Your task to perform on an android device: What is the speed of a skateboard? Image 0: 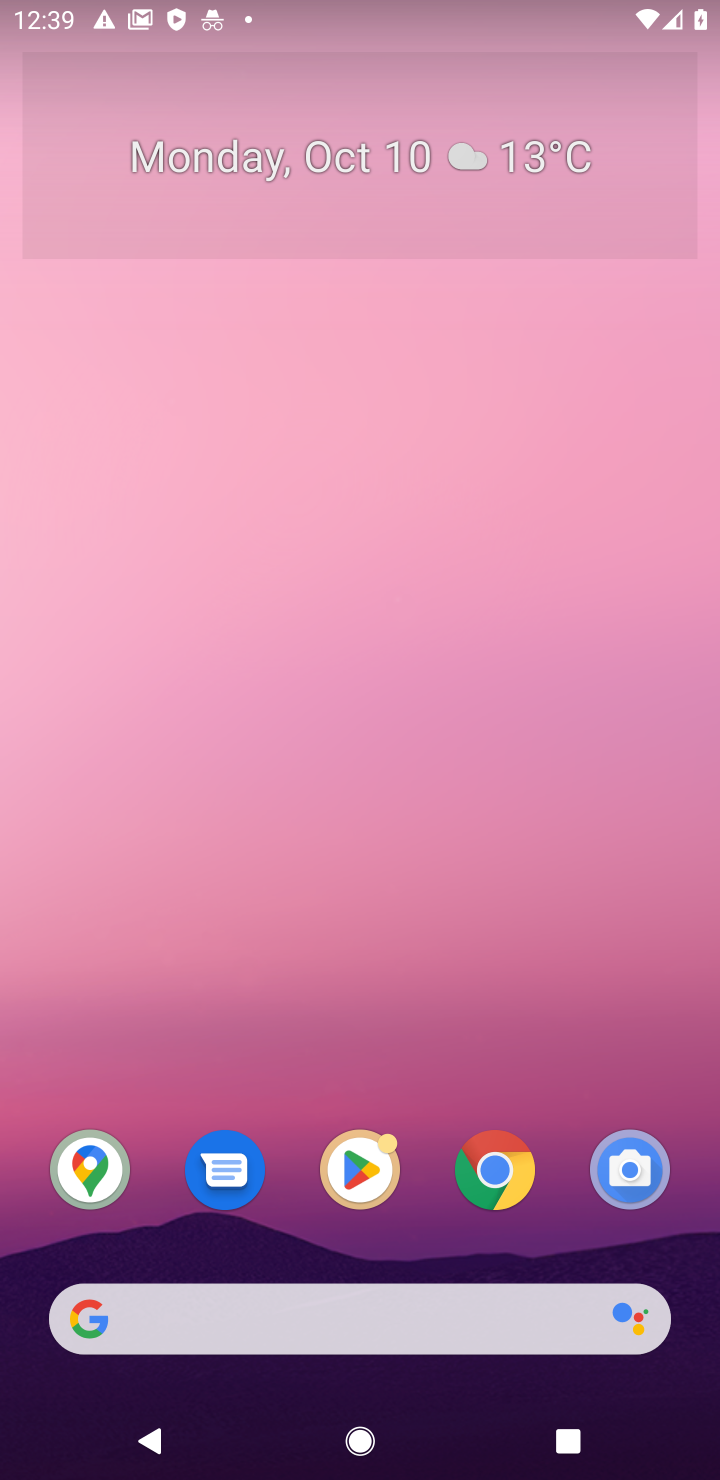
Step 0: click (491, 1172)
Your task to perform on an android device: What is the speed of a skateboard? Image 1: 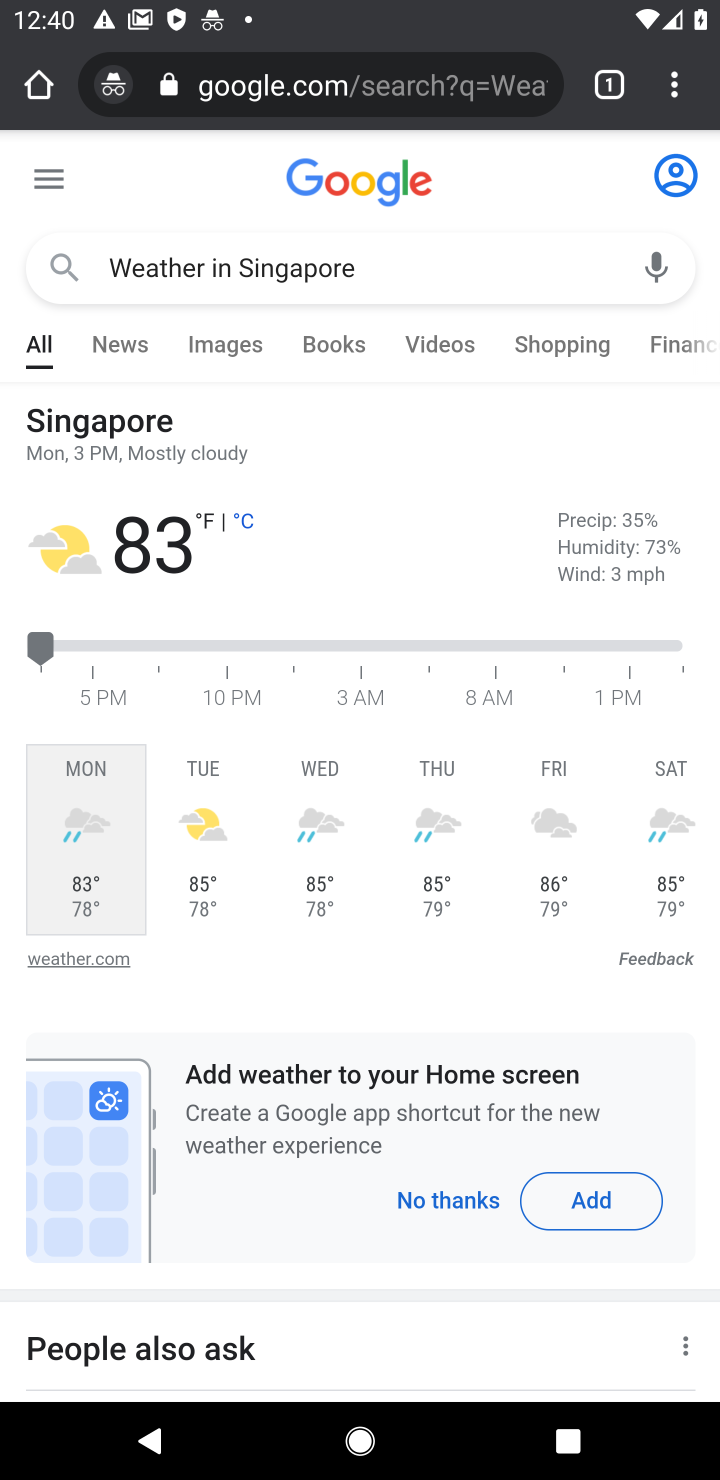
Step 1: click (422, 109)
Your task to perform on an android device: What is the speed of a skateboard? Image 2: 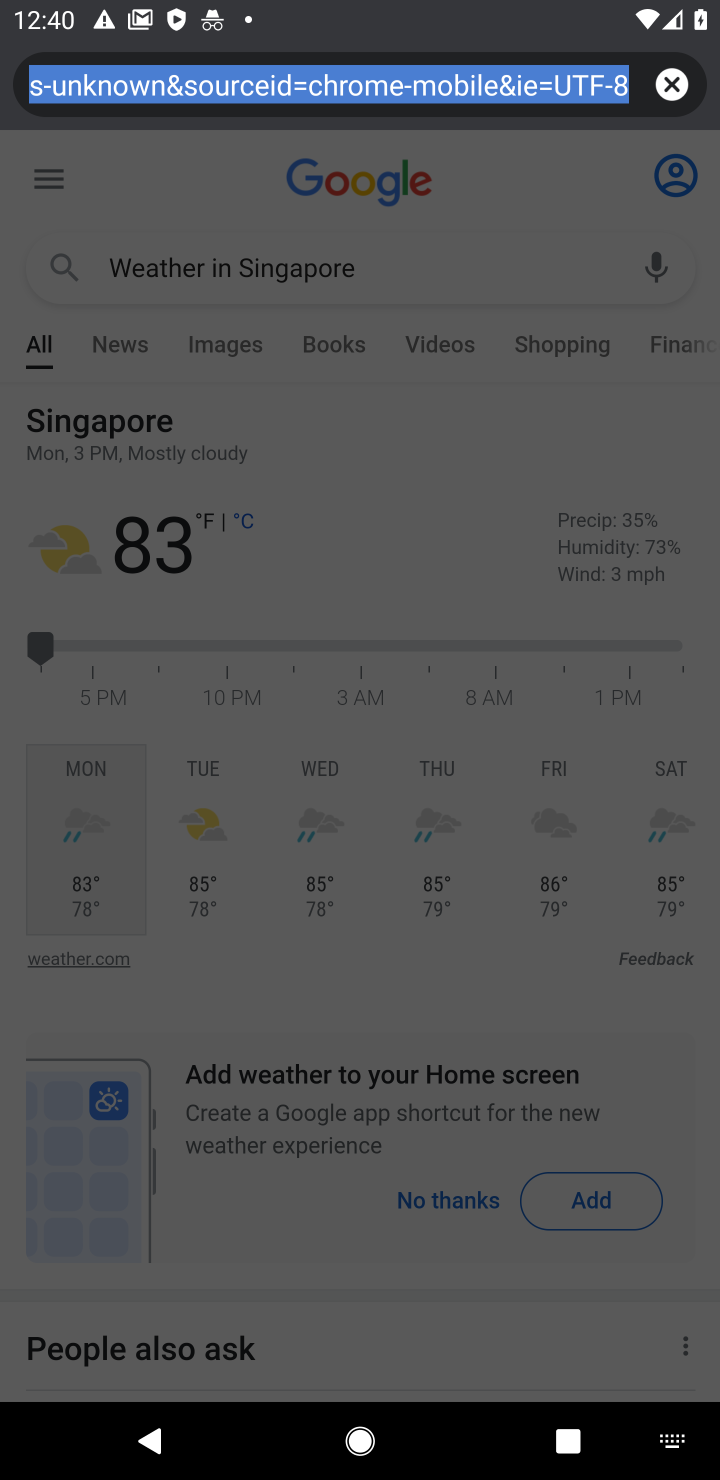
Step 2: click (670, 87)
Your task to perform on an android device: What is the speed of a skateboard? Image 3: 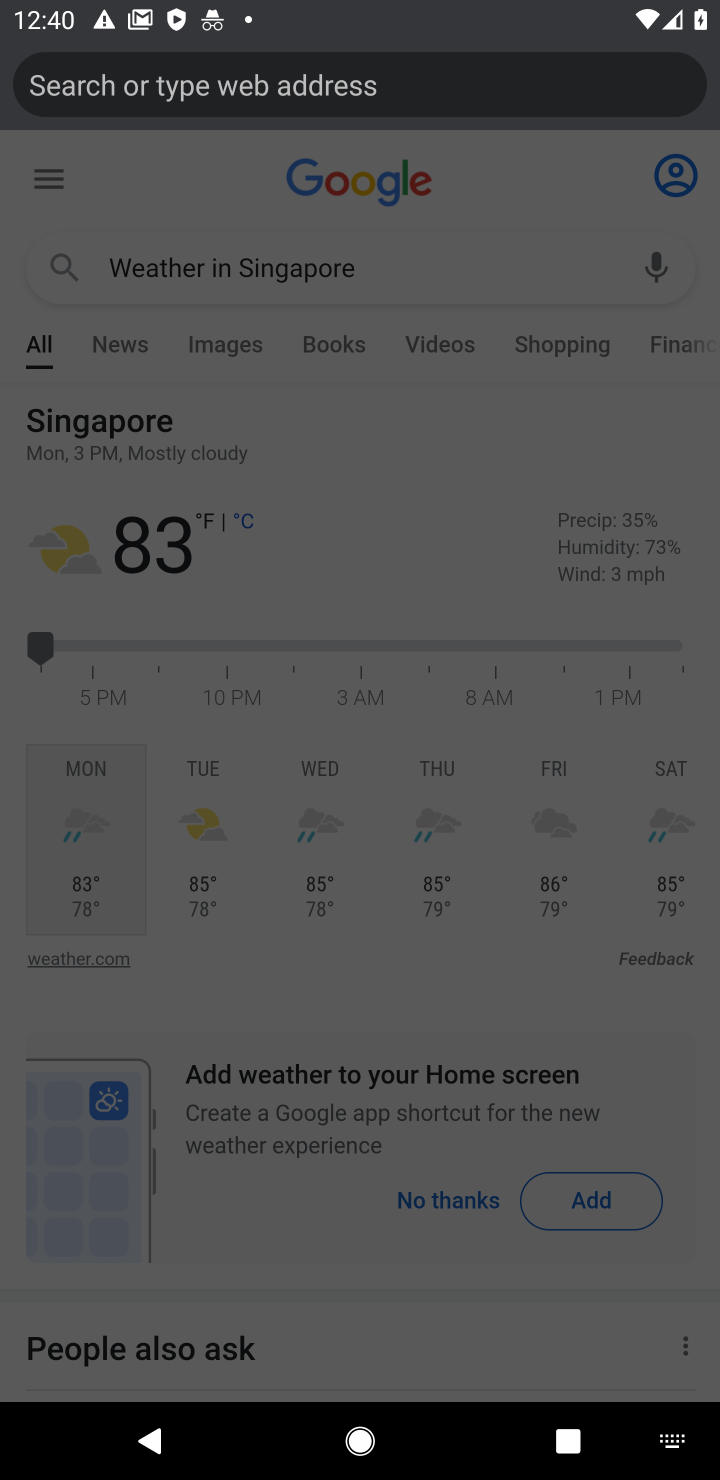
Step 3: type "What is the speed of a skateboard"
Your task to perform on an android device: What is the speed of a skateboard? Image 4: 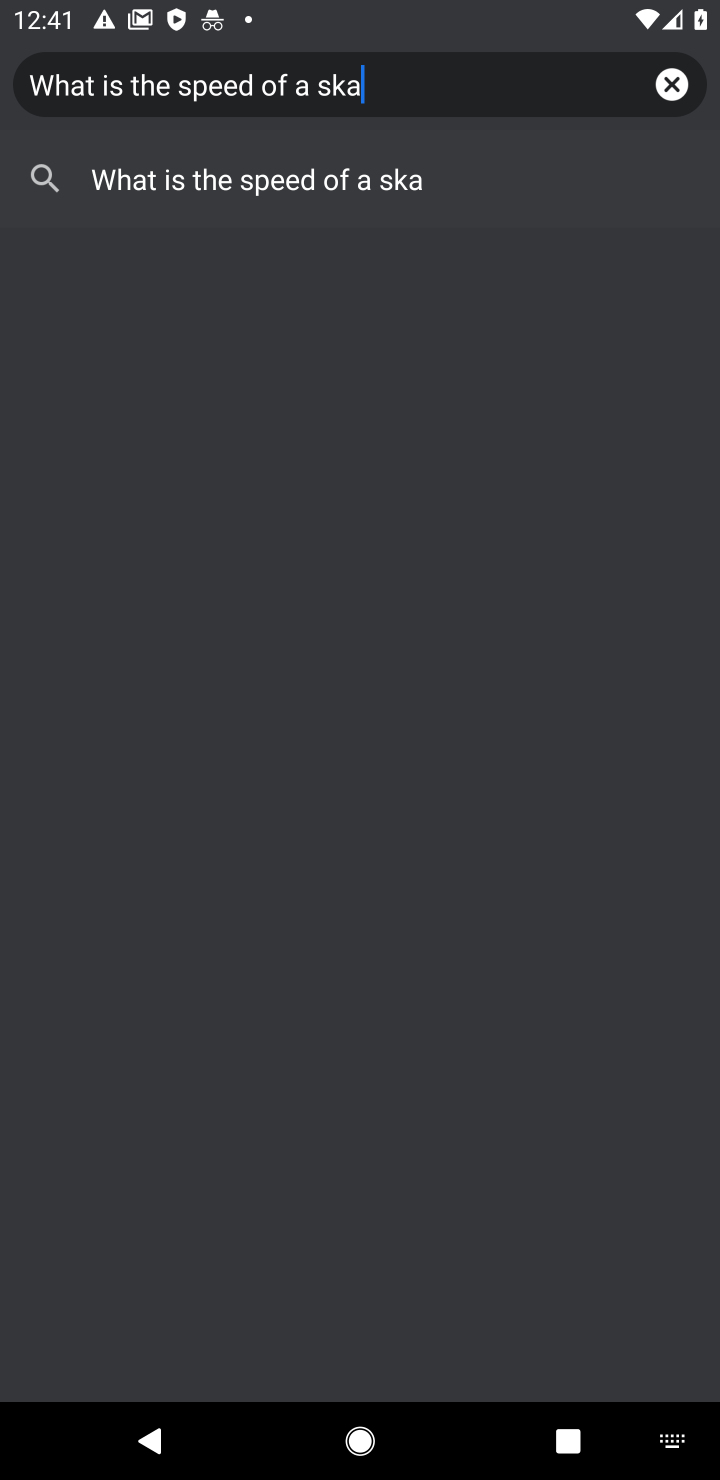
Step 4: type "teboard"
Your task to perform on an android device: What is the speed of a skateboard? Image 5: 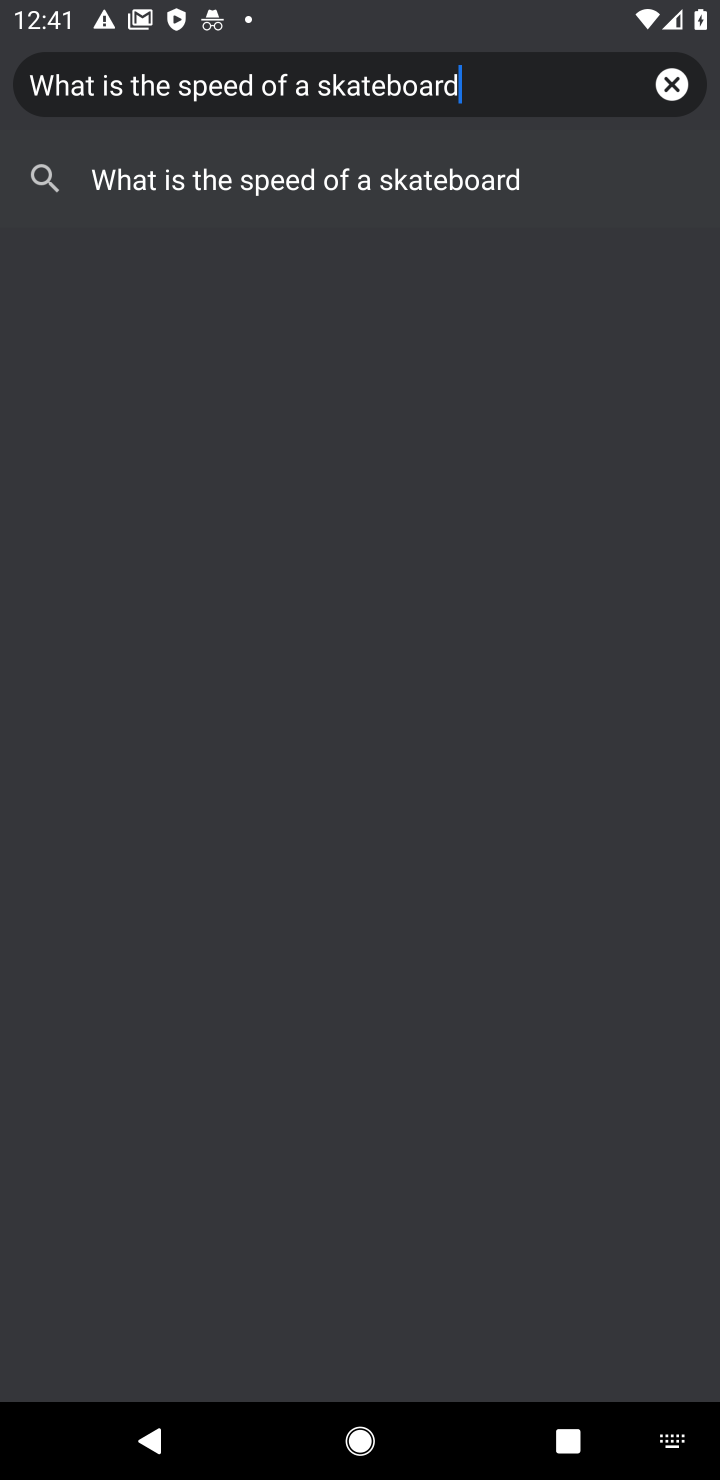
Step 5: click (488, 198)
Your task to perform on an android device: What is the speed of a skateboard? Image 6: 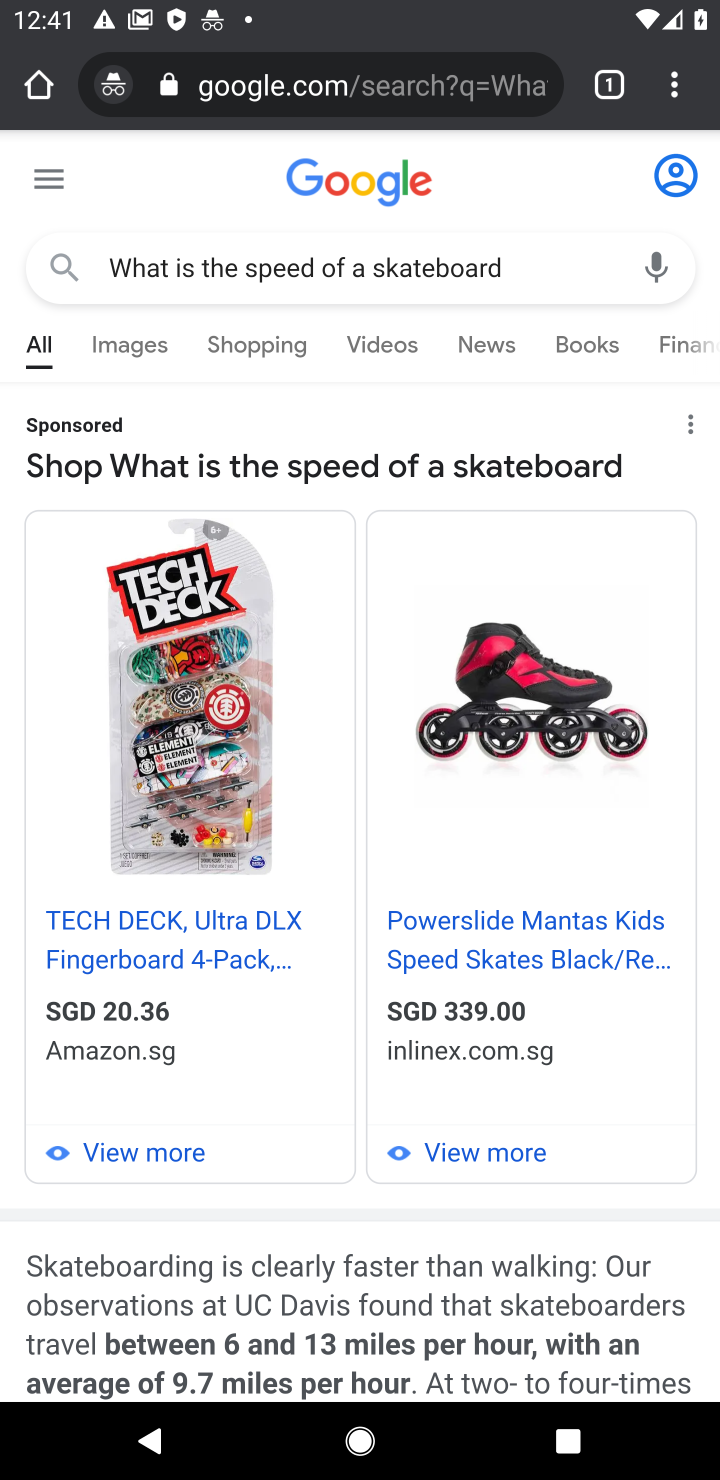
Step 6: task complete